Your task to perform on an android device: Open calendar and show me the fourth week of next month Image 0: 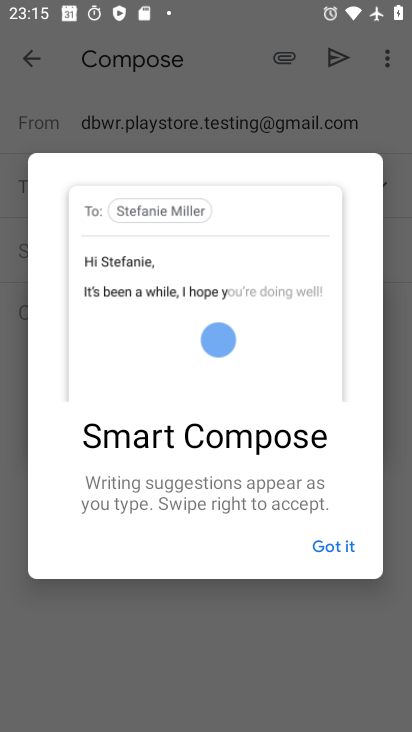
Step 0: press home button
Your task to perform on an android device: Open calendar and show me the fourth week of next month Image 1: 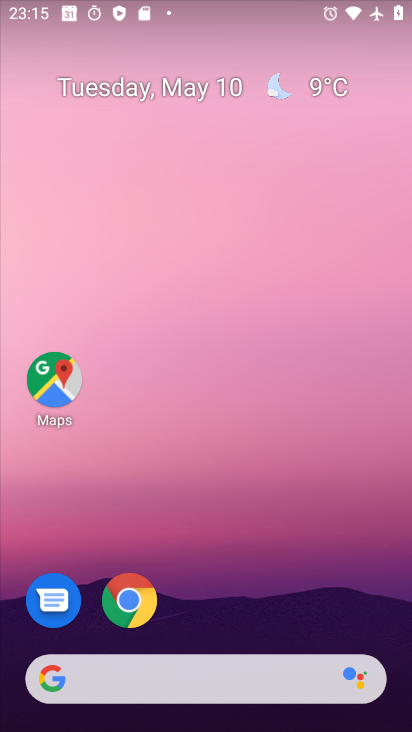
Step 1: drag from (322, 340) to (411, 505)
Your task to perform on an android device: Open calendar and show me the fourth week of next month Image 2: 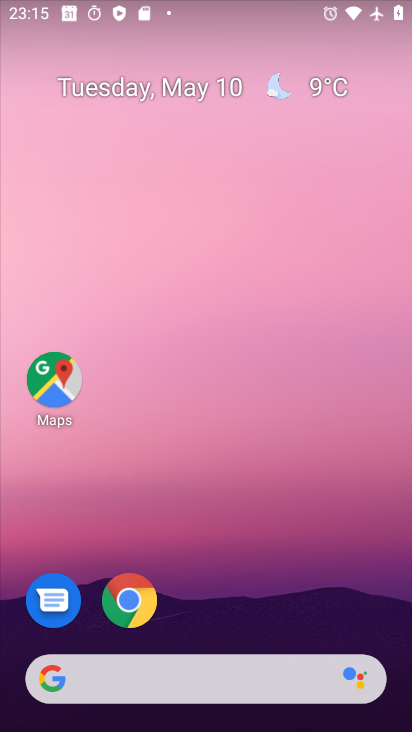
Step 2: drag from (351, 435) to (340, 54)
Your task to perform on an android device: Open calendar and show me the fourth week of next month Image 3: 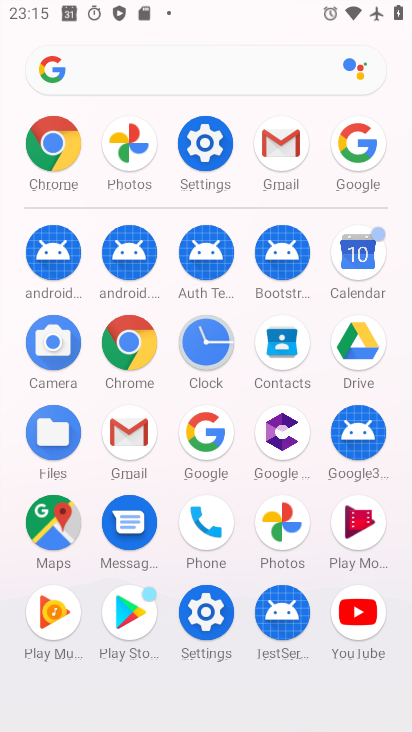
Step 3: click (222, 300)
Your task to perform on an android device: Open calendar and show me the fourth week of next month Image 4: 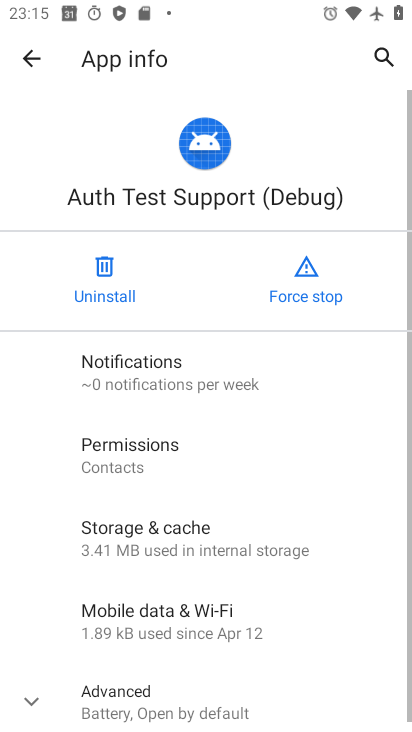
Step 4: click (352, 272)
Your task to perform on an android device: Open calendar and show me the fourth week of next month Image 5: 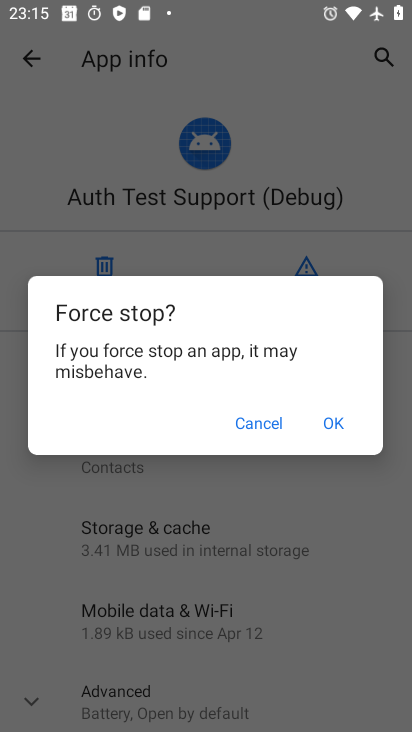
Step 5: press home button
Your task to perform on an android device: Open calendar and show me the fourth week of next month Image 6: 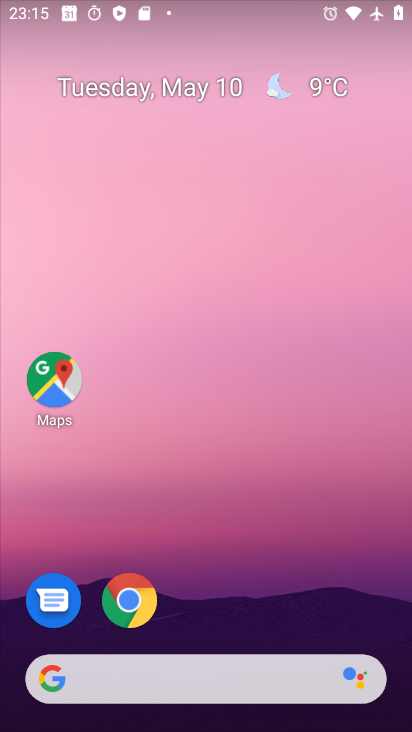
Step 6: drag from (330, 595) to (276, 0)
Your task to perform on an android device: Open calendar and show me the fourth week of next month Image 7: 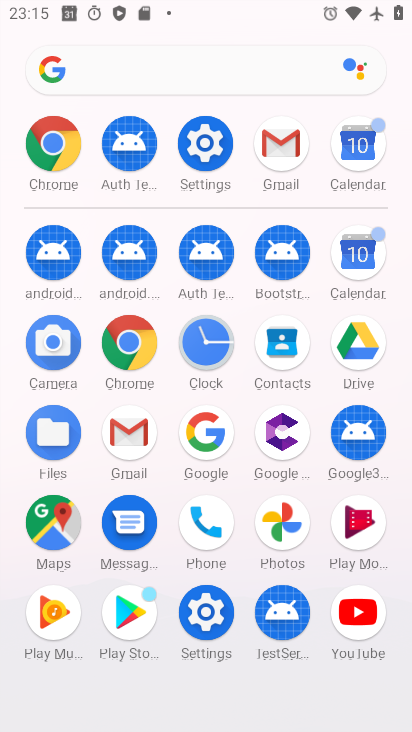
Step 7: click (362, 269)
Your task to perform on an android device: Open calendar and show me the fourth week of next month Image 8: 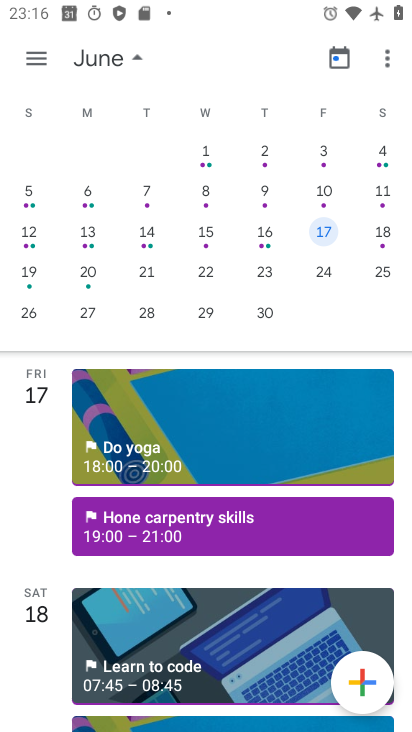
Step 8: drag from (350, 246) to (412, 277)
Your task to perform on an android device: Open calendar and show me the fourth week of next month Image 9: 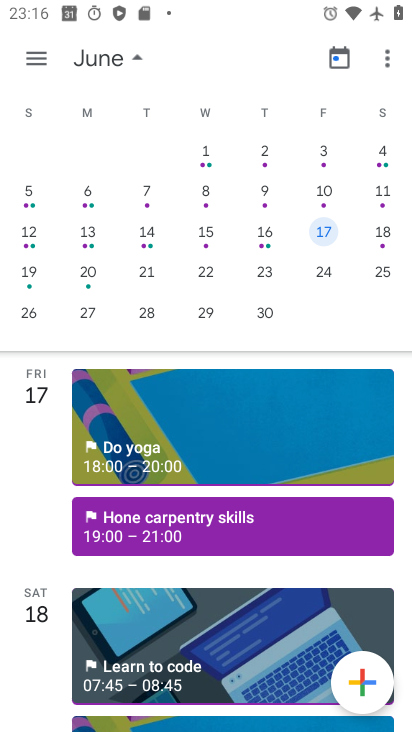
Step 9: click (152, 316)
Your task to perform on an android device: Open calendar and show me the fourth week of next month Image 10: 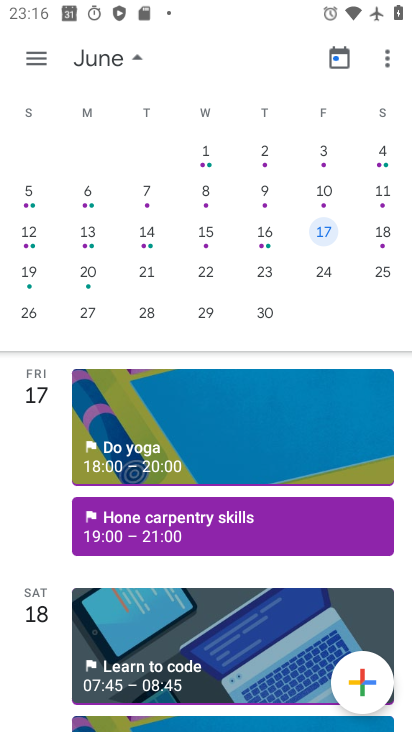
Step 10: click (148, 316)
Your task to perform on an android device: Open calendar and show me the fourth week of next month Image 11: 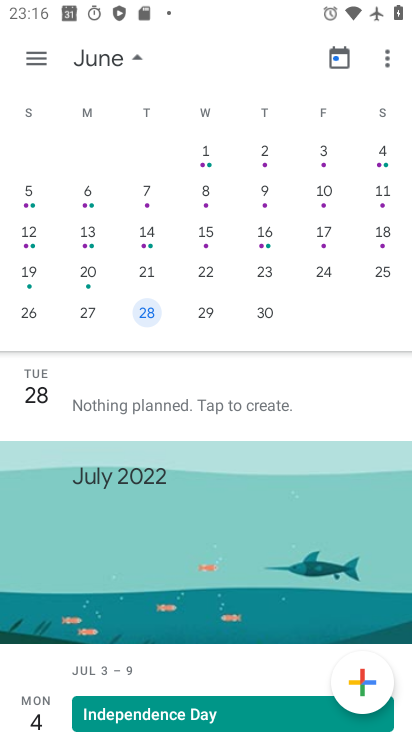
Step 11: task complete